Your task to perform on an android device: turn on notifications settings in the gmail app Image 0: 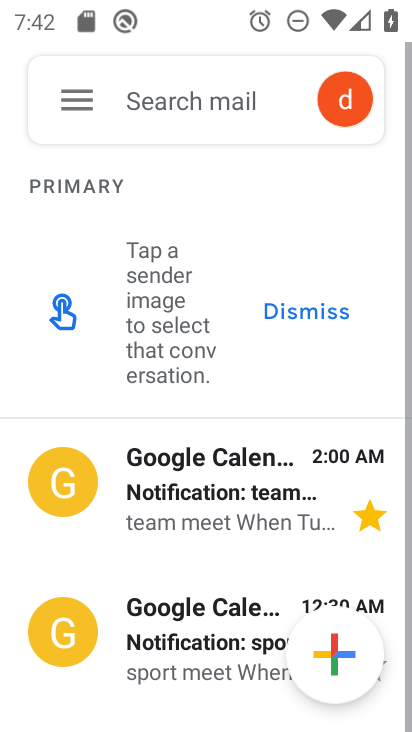
Step 0: press home button
Your task to perform on an android device: turn on notifications settings in the gmail app Image 1: 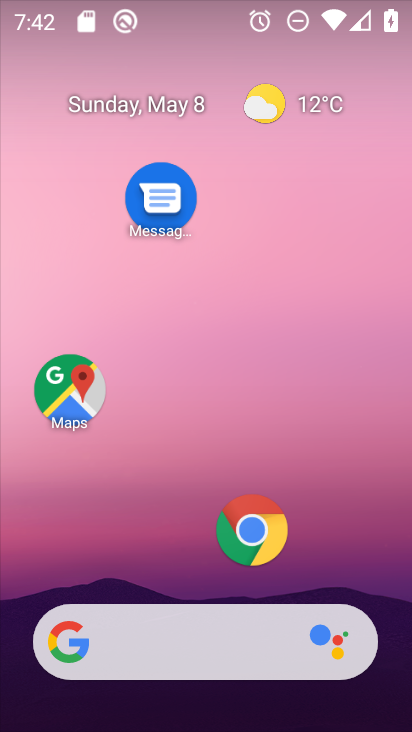
Step 1: drag from (202, 569) to (211, 60)
Your task to perform on an android device: turn on notifications settings in the gmail app Image 2: 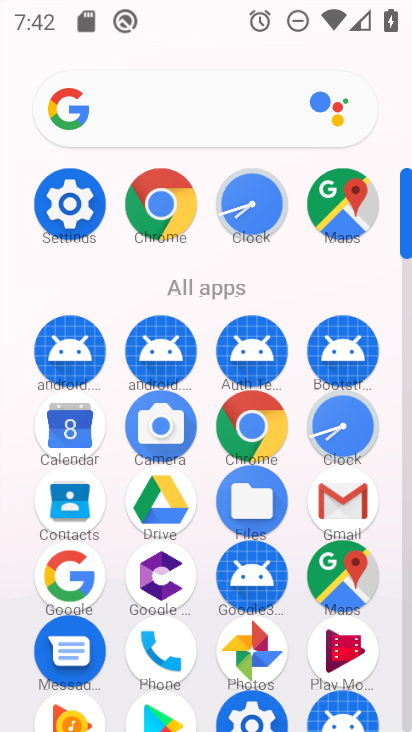
Step 2: click (340, 492)
Your task to perform on an android device: turn on notifications settings in the gmail app Image 3: 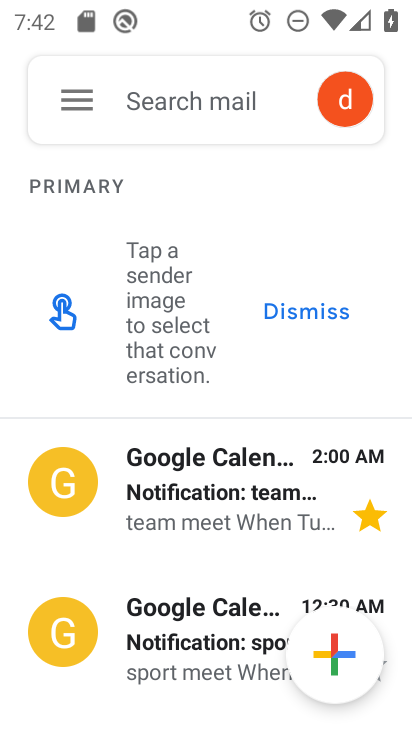
Step 3: click (74, 93)
Your task to perform on an android device: turn on notifications settings in the gmail app Image 4: 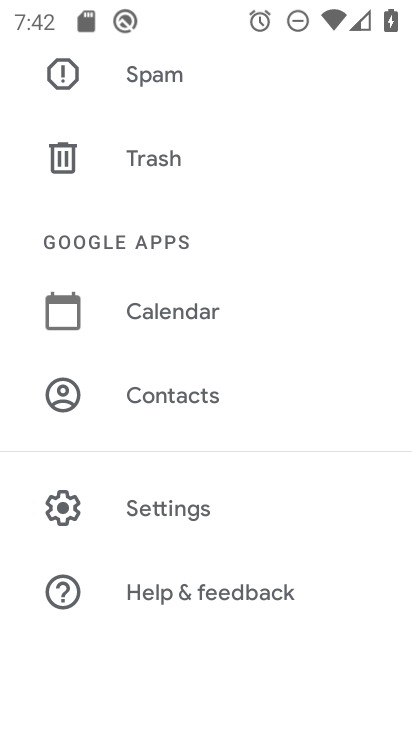
Step 4: click (104, 510)
Your task to perform on an android device: turn on notifications settings in the gmail app Image 5: 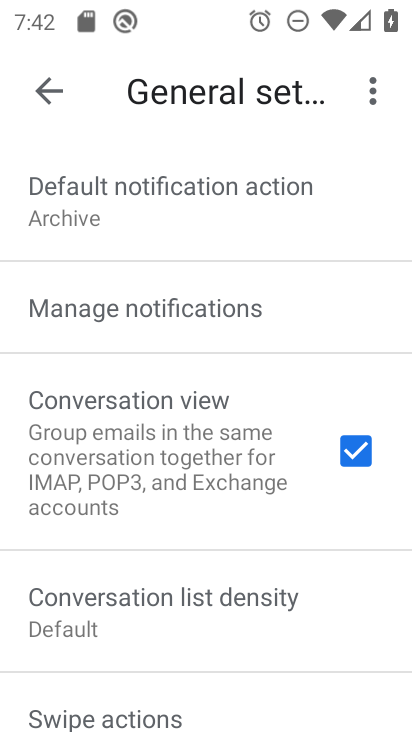
Step 5: click (141, 315)
Your task to perform on an android device: turn on notifications settings in the gmail app Image 6: 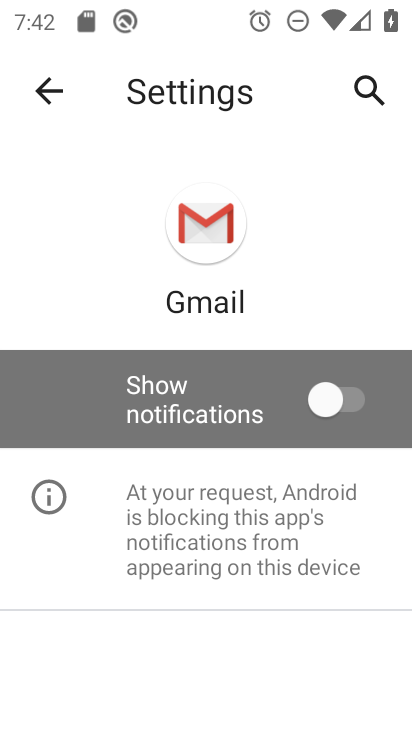
Step 6: click (356, 391)
Your task to perform on an android device: turn on notifications settings in the gmail app Image 7: 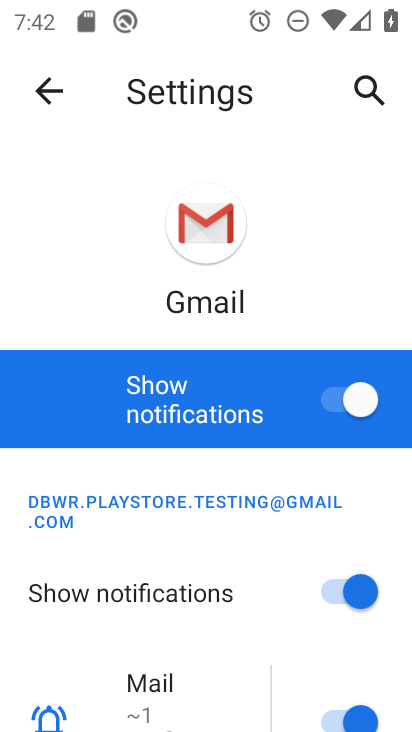
Step 7: task complete